Your task to perform on an android device: Find coffee shops on Maps Image 0: 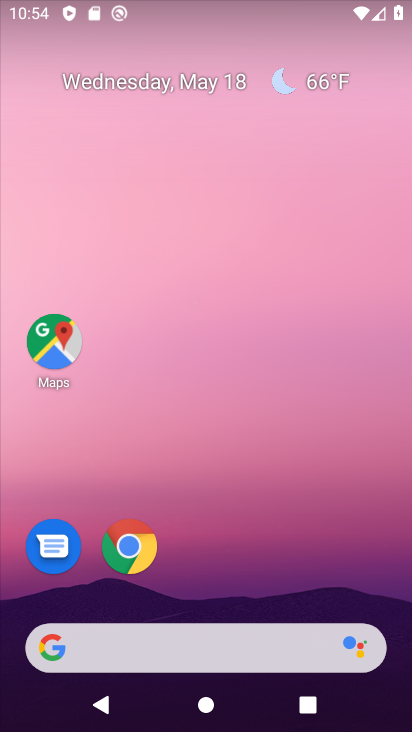
Step 0: drag from (221, 727) to (218, 184)
Your task to perform on an android device: Find coffee shops on Maps Image 1: 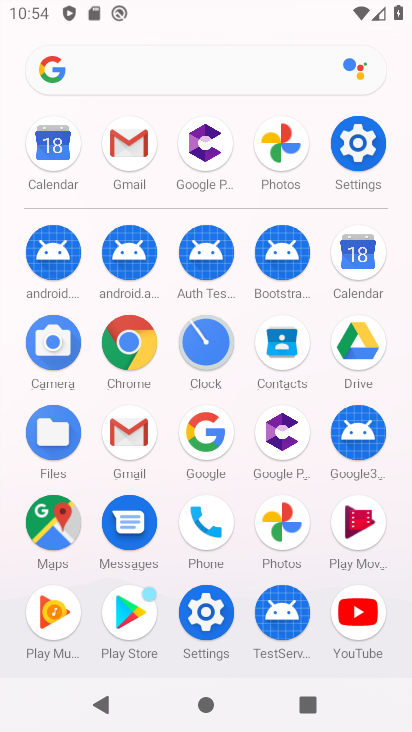
Step 1: click (43, 520)
Your task to perform on an android device: Find coffee shops on Maps Image 2: 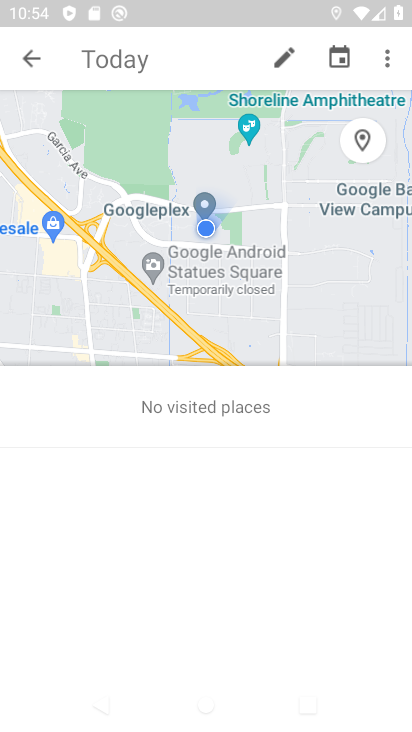
Step 2: click (32, 55)
Your task to perform on an android device: Find coffee shops on Maps Image 3: 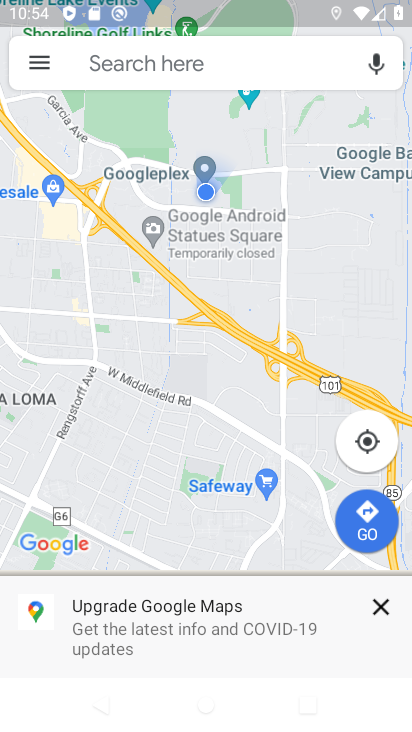
Step 3: click (213, 56)
Your task to perform on an android device: Find coffee shops on Maps Image 4: 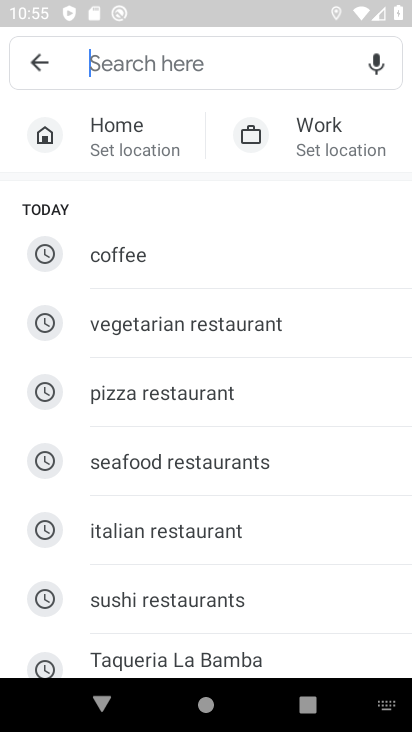
Step 4: type "coffee shopss"
Your task to perform on an android device: Find coffee shops on Maps Image 5: 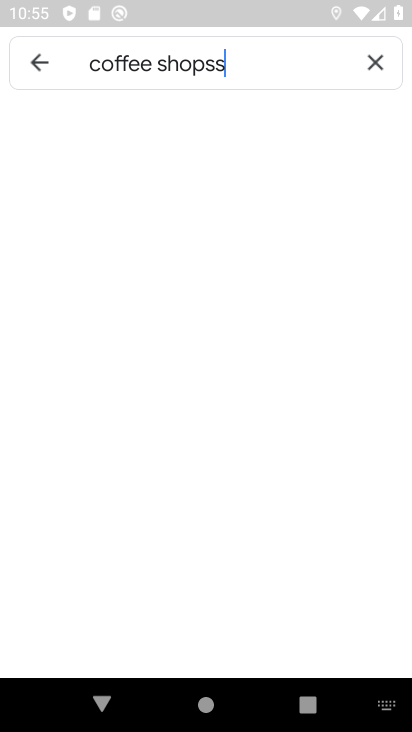
Step 5: type ""
Your task to perform on an android device: Find coffee shops on Maps Image 6: 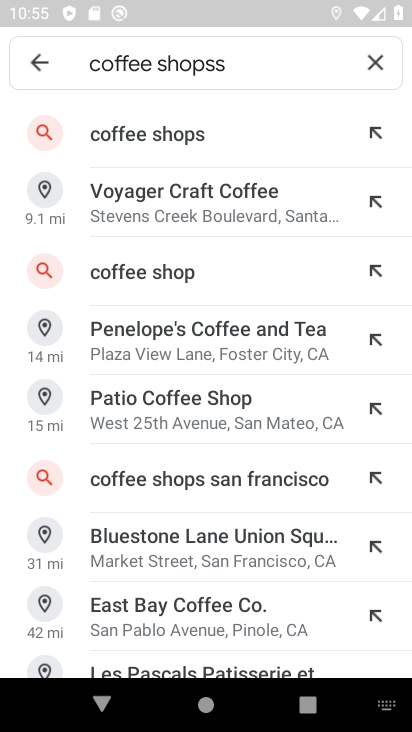
Step 6: click (128, 133)
Your task to perform on an android device: Find coffee shops on Maps Image 7: 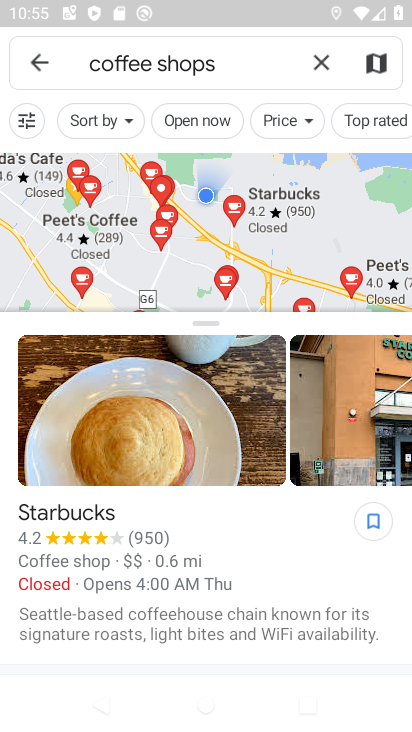
Step 7: task complete